Your task to perform on an android device: turn off javascript in the chrome app Image 0: 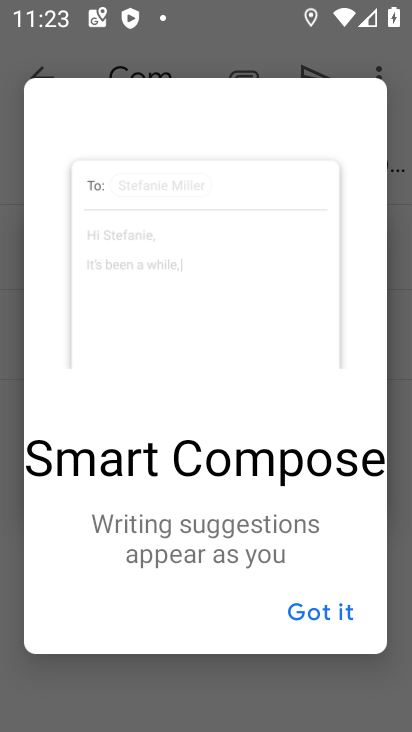
Step 0: press home button
Your task to perform on an android device: turn off javascript in the chrome app Image 1: 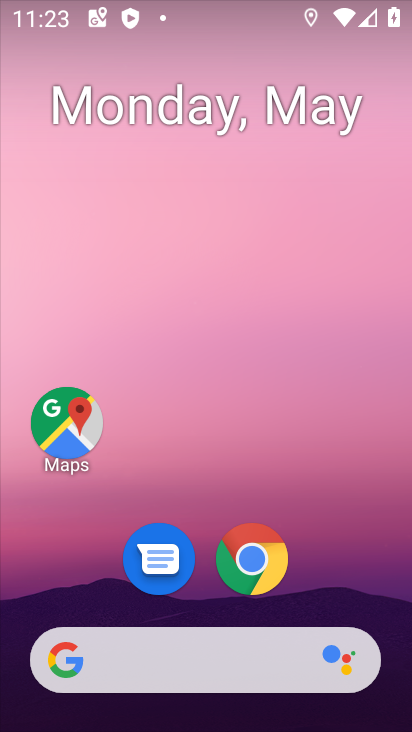
Step 1: click (268, 544)
Your task to perform on an android device: turn off javascript in the chrome app Image 2: 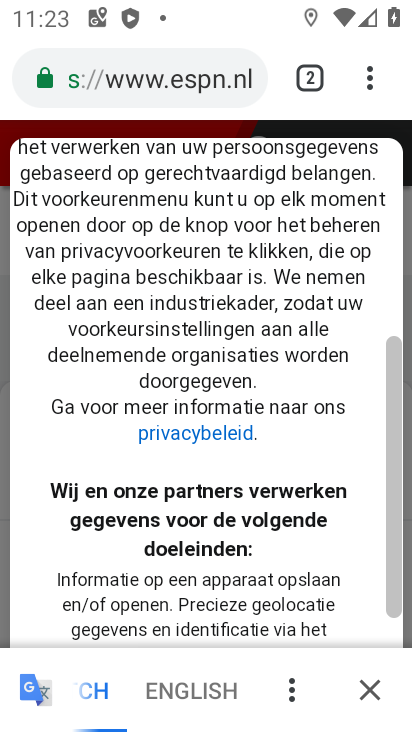
Step 2: drag from (371, 93) to (144, 623)
Your task to perform on an android device: turn off javascript in the chrome app Image 3: 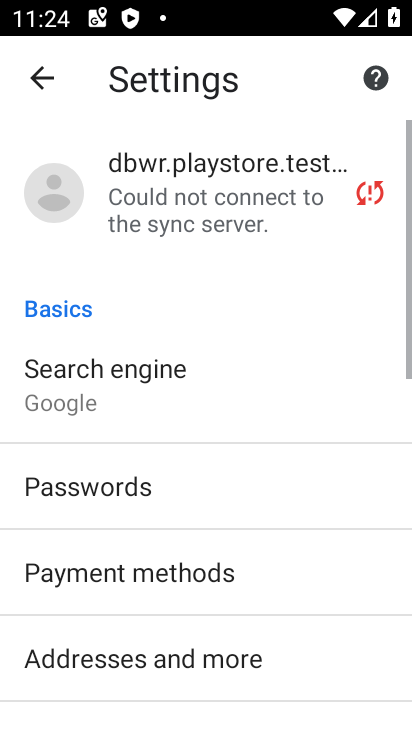
Step 3: drag from (204, 607) to (180, 251)
Your task to perform on an android device: turn off javascript in the chrome app Image 4: 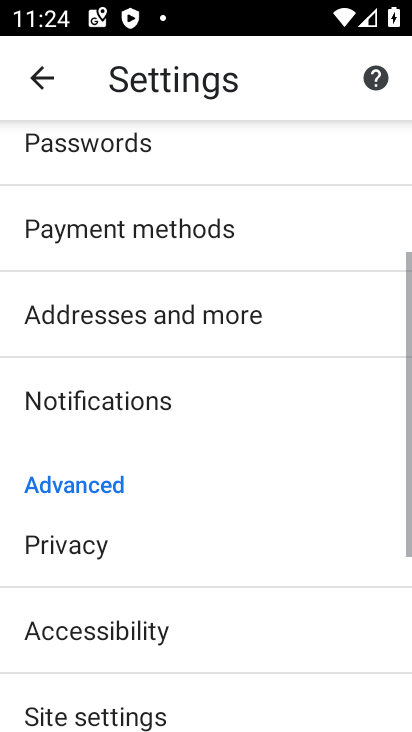
Step 4: drag from (233, 687) to (240, 325)
Your task to perform on an android device: turn off javascript in the chrome app Image 5: 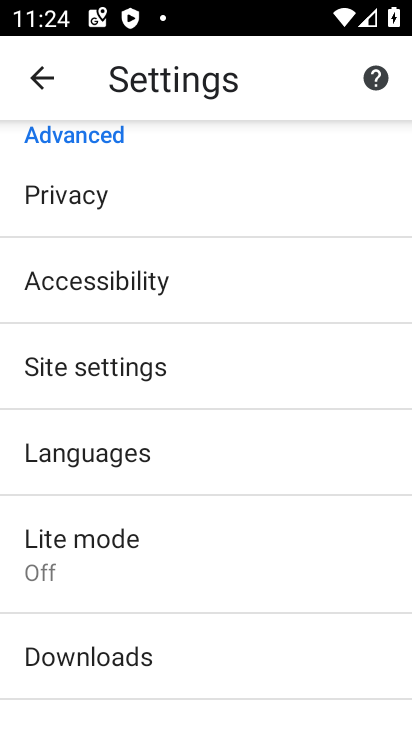
Step 5: click (166, 377)
Your task to perform on an android device: turn off javascript in the chrome app Image 6: 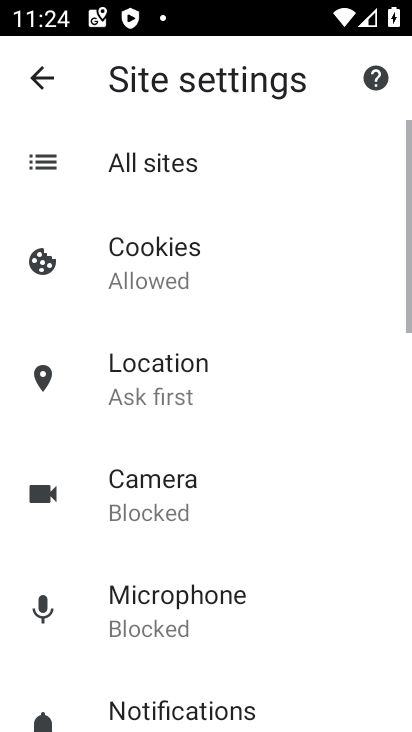
Step 6: drag from (257, 597) to (287, 301)
Your task to perform on an android device: turn off javascript in the chrome app Image 7: 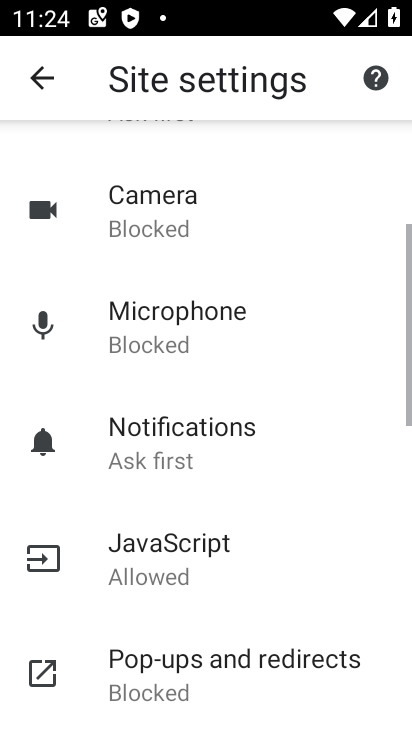
Step 7: drag from (311, 545) to (302, 243)
Your task to perform on an android device: turn off javascript in the chrome app Image 8: 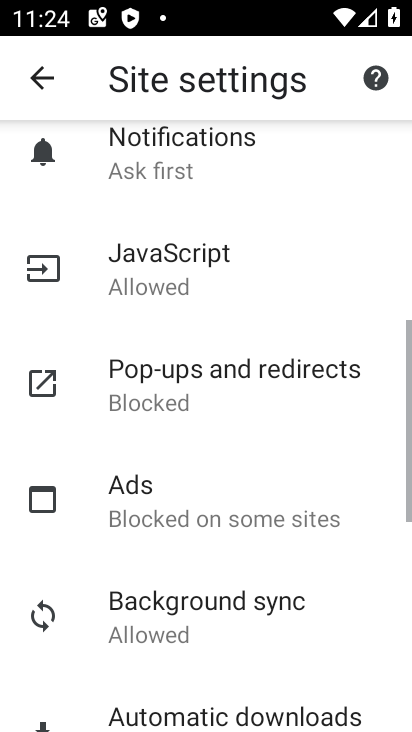
Step 8: click (251, 280)
Your task to perform on an android device: turn off javascript in the chrome app Image 9: 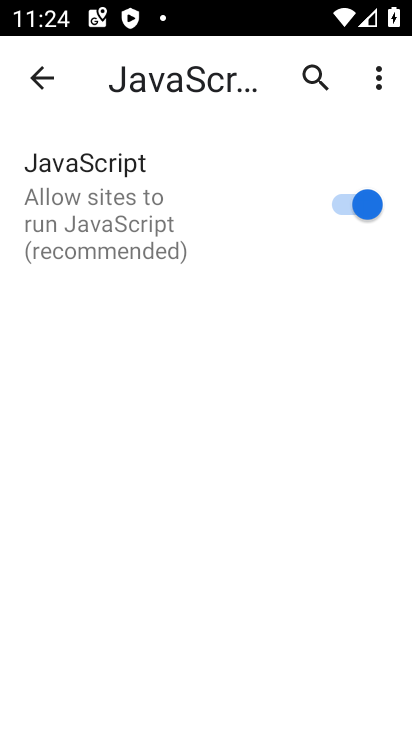
Step 9: click (326, 211)
Your task to perform on an android device: turn off javascript in the chrome app Image 10: 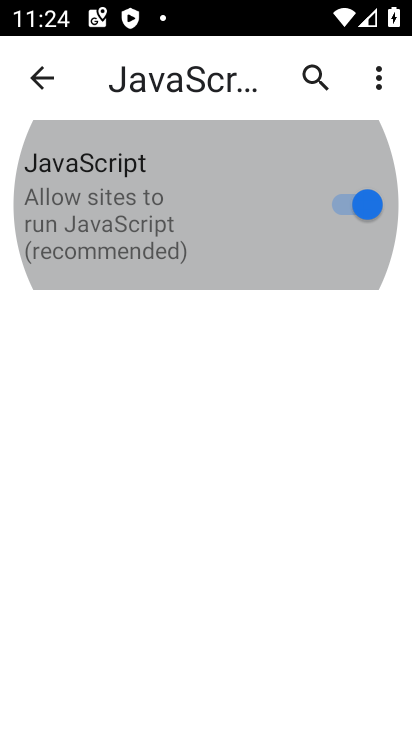
Step 10: click (326, 211)
Your task to perform on an android device: turn off javascript in the chrome app Image 11: 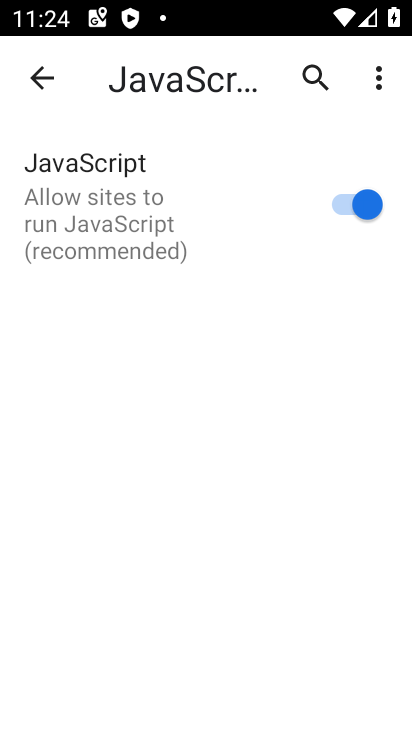
Step 11: click (363, 221)
Your task to perform on an android device: turn off javascript in the chrome app Image 12: 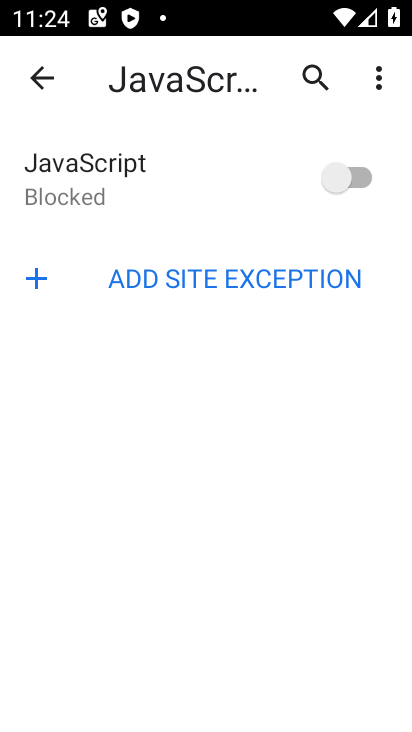
Step 12: task complete